Your task to perform on an android device: Open the calendar and show me this week's events? Image 0: 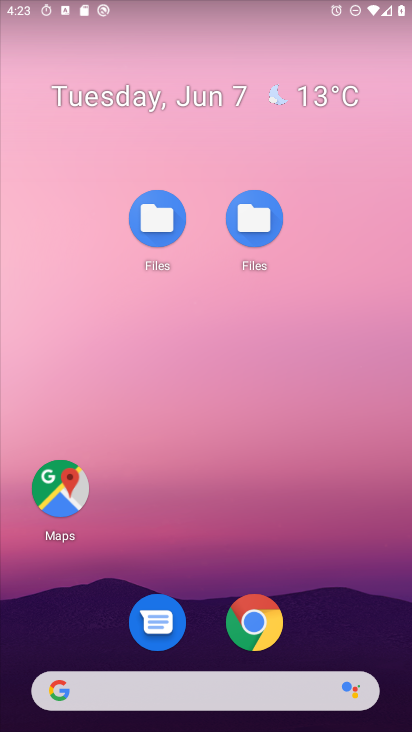
Step 0: drag from (347, 632) to (346, 336)
Your task to perform on an android device: Open the calendar and show me this week's events? Image 1: 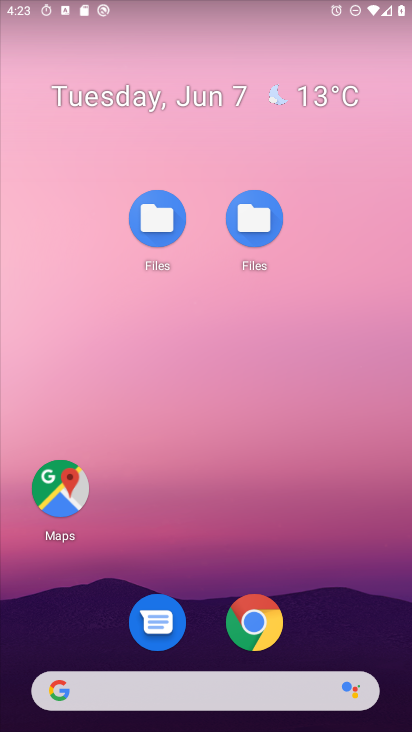
Step 1: drag from (380, 639) to (365, 91)
Your task to perform on an android device: Open the calendar and show me this week's events? Image 2: 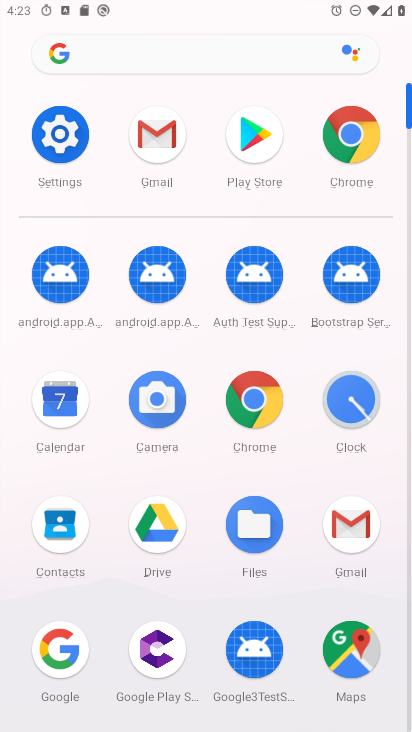
Step 2: click (61, 405)
Your task to perform on an android device: Open the calendar and show me this week's events? Image 3: 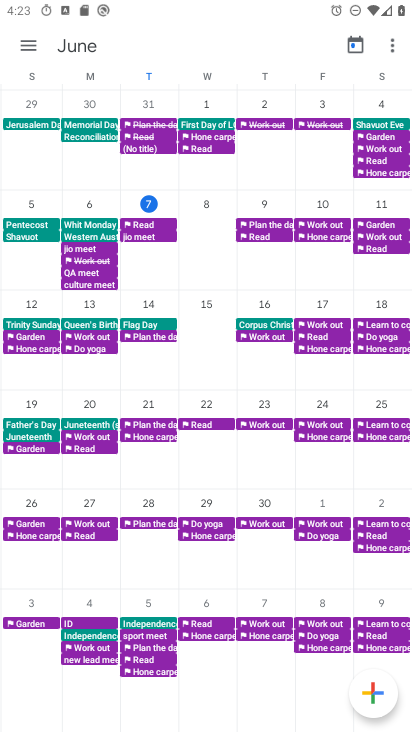
Step 3: click (34, 46)
Your task to perform on an android device: Open the calendar and show me this week's events? Image 4: 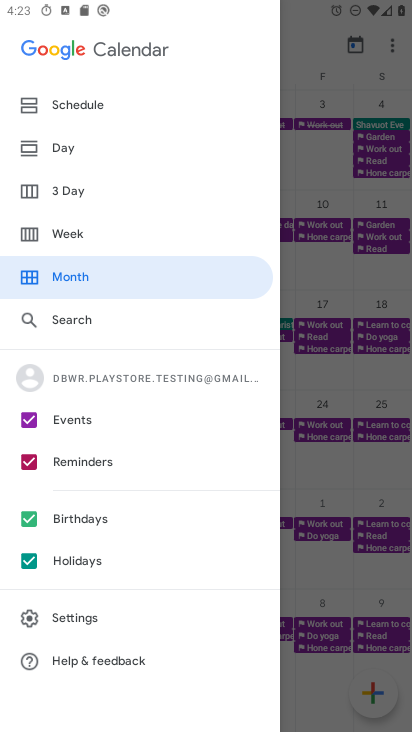
Step 4: click (111, 237)
Your task to perform on an android device: Open the calendar and show me this week's events? Image 5: 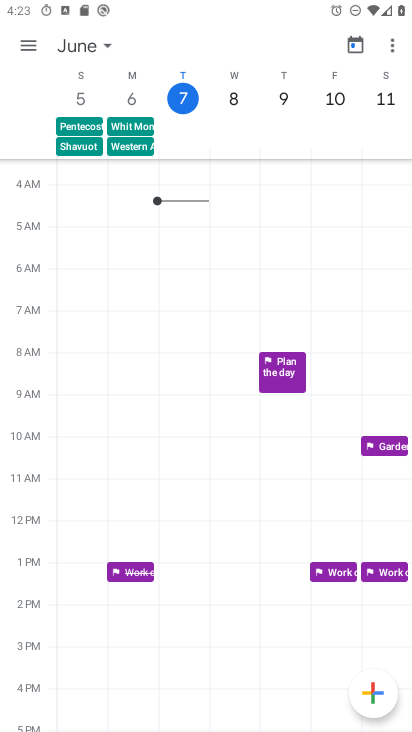
Step 5: task complete